Your task to perform on an android device: check storage Image 0: 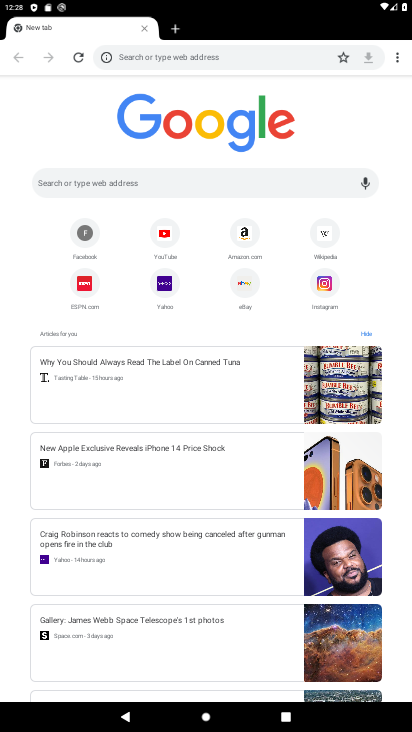
Step 0: click (73, 395)
Your task to perform on an android device: check storage Image 1: 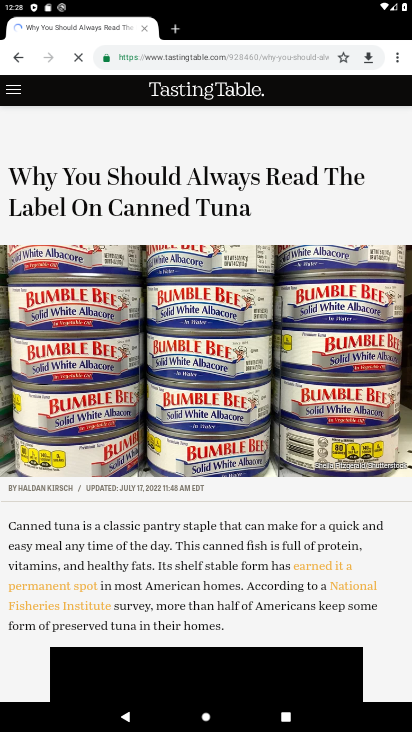
Step 1: press home button
Your task to perform on an android device: check storage Image 2: 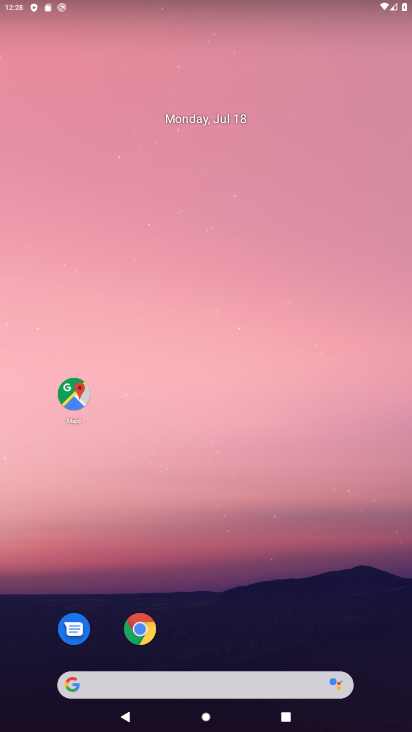
Step 2: drag from (264, 550) to (172, 120)
Your task to perform on an android device: check storage Image 3: 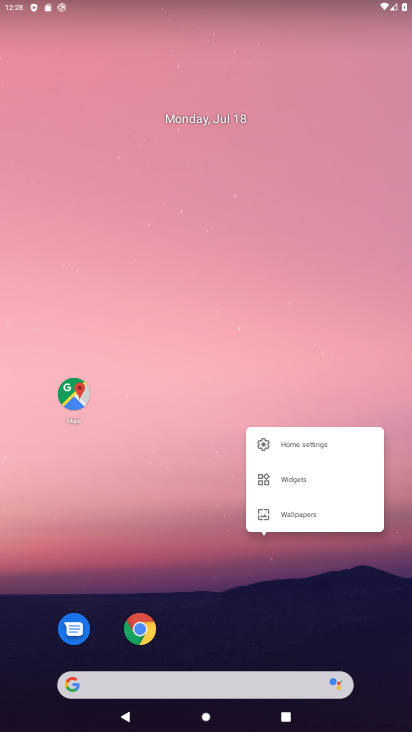
Step 3: click (70, 545)
Your task to perform on an android device: check storage Image 4: 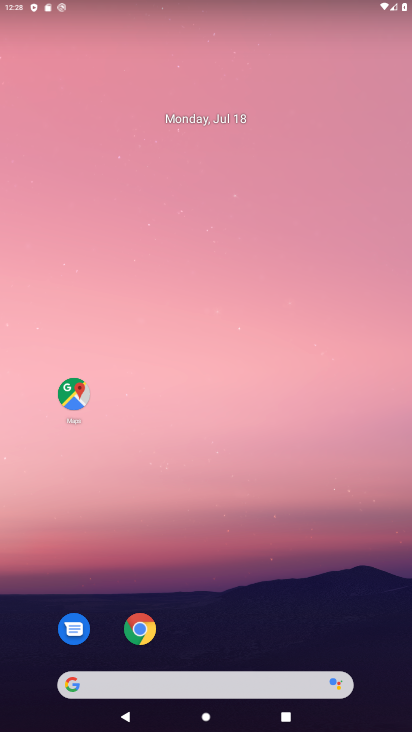
Step 4: drag from (226, 590) to (166, 123)
Your task to perform on an android device: check storage Image 5: 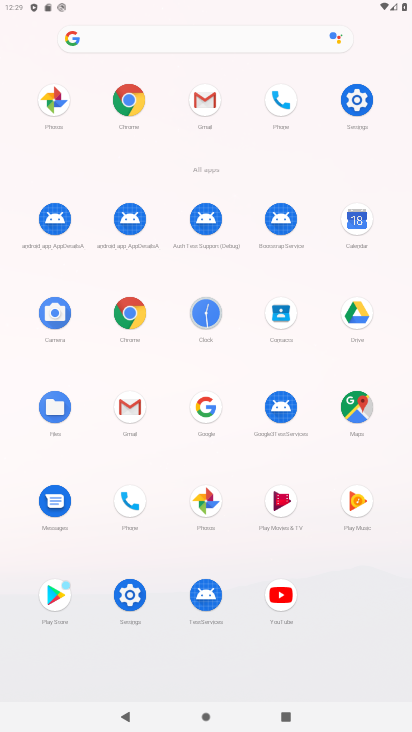
Step 5: click (355, 101)
Your task to perform on an android device: check storage Image 6: 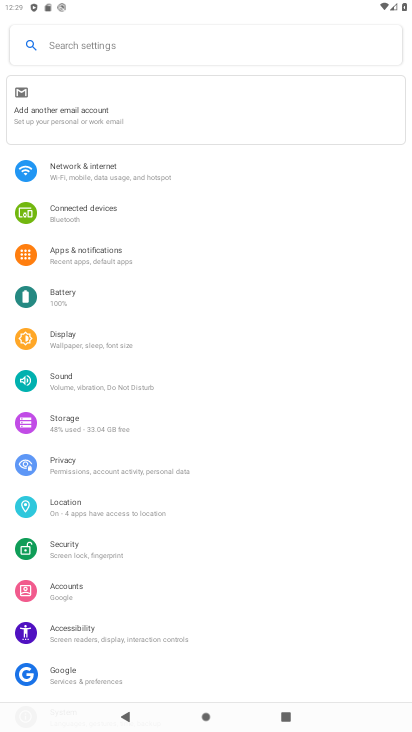
Step 6: click (65, 423)
Your task to perform on an android device: check storage Image 7: 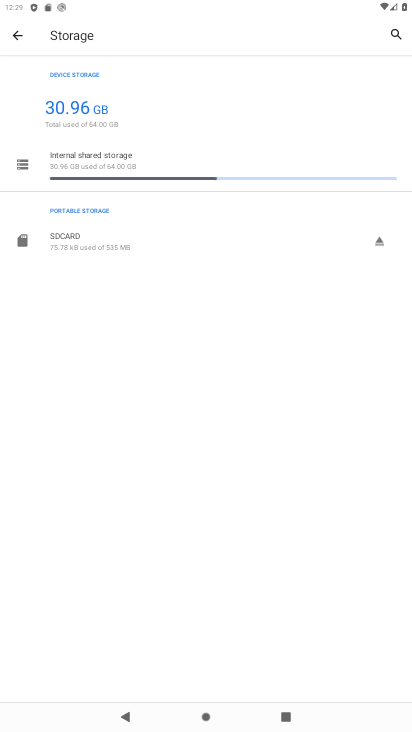
Step 7: task complete